Your task to perform on an android device: turn on priority inbox in the gmail app Image 0: 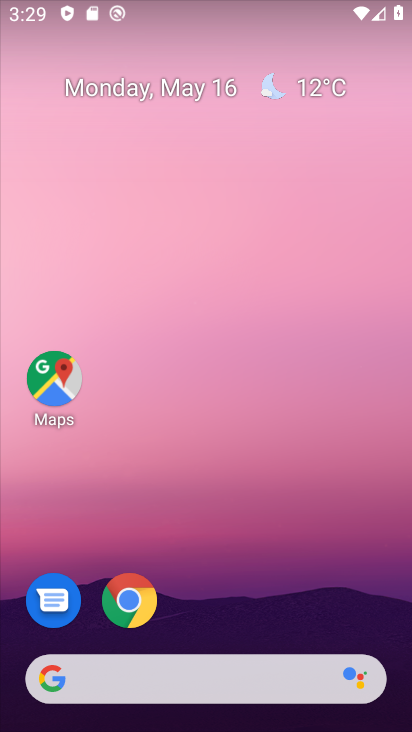
Step 0: drag from (157, 641) to (182, 283)
Your task to perform on an android device: turn on priority inbox in the gmail app Image 1: 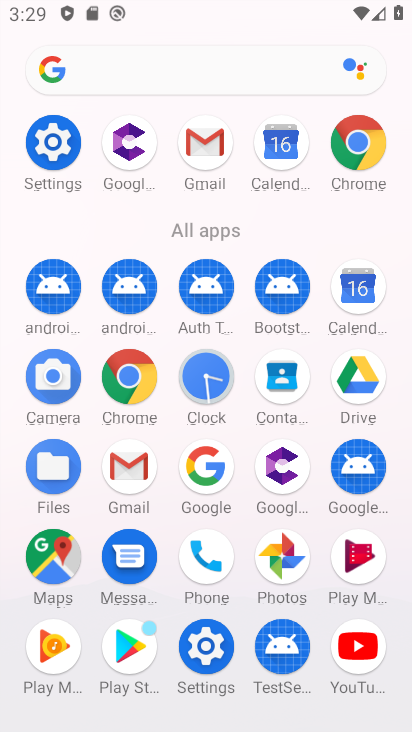
Step 1: click (189, 153)
Your task to perform on an android device: turn on priority inbox in the gmail app Image 2: 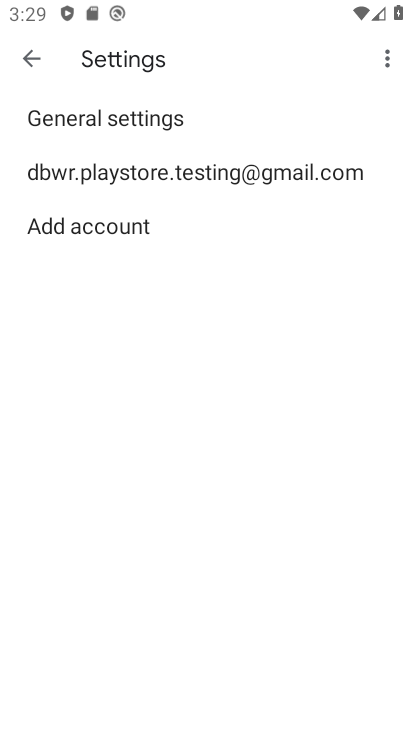
Step 2: click (125, 175)
Your task to perform on an android device: turn on priority inbox in the gmail app Image 3: 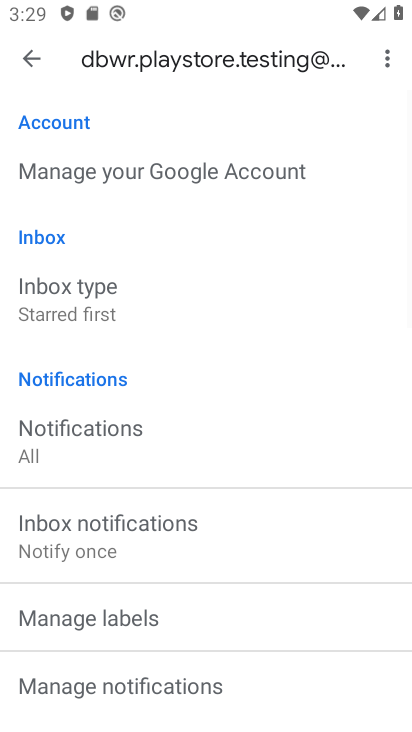
Step 3: click (94, 311)
Your task to perform on an android device: turn on priority inbox in the gmail app Image 4: 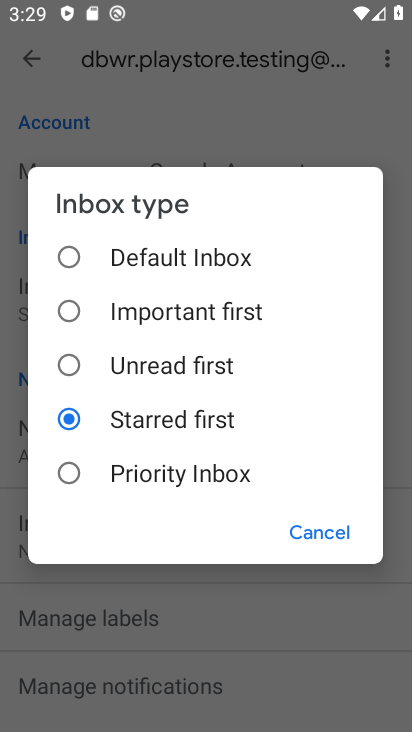
Step 4: click (149, 468)
Your task to perform on an android device: turn on priority inbox in the gmail app Image 5: 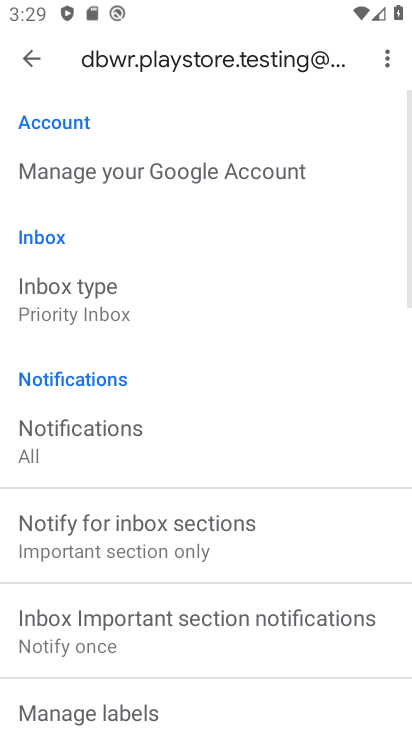
Step 5: task complete